Your task to perform on an android device: turn off location Image 0: 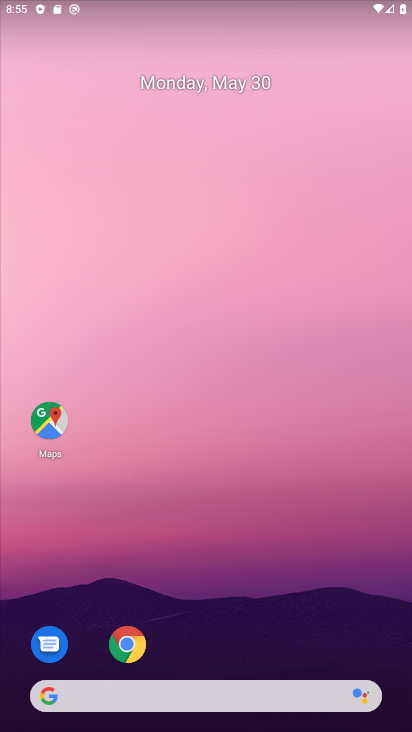
Step 0: drag from (267, 644) to (265, 125)
Your task to perform on an android device: turn off location Image 1: 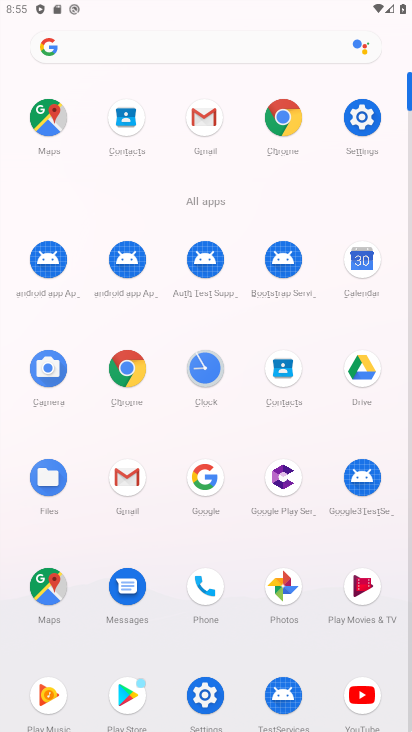
Step 1: click (358, 118)
Your task to perform on an android device: turn off location Image 2: 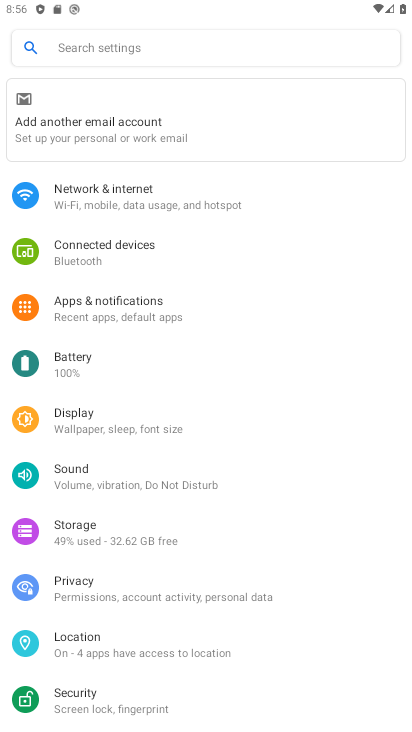
Step 2: click (75, 644)
Your task to perform on an android device: turn off location Image 3: 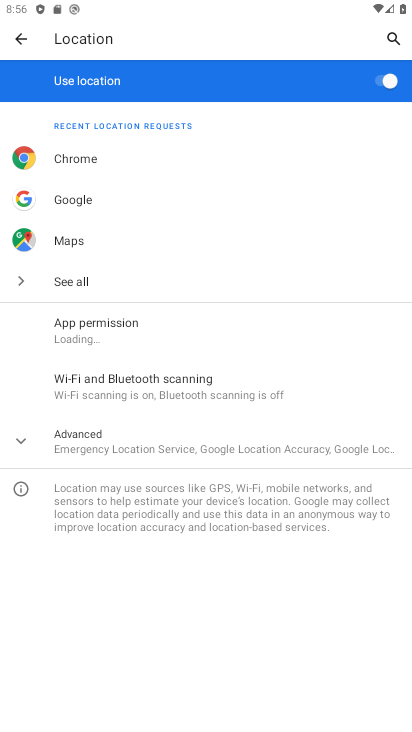
Step 3: click (385, 81)
Your task to perform on an android device: turn off location Image 4: 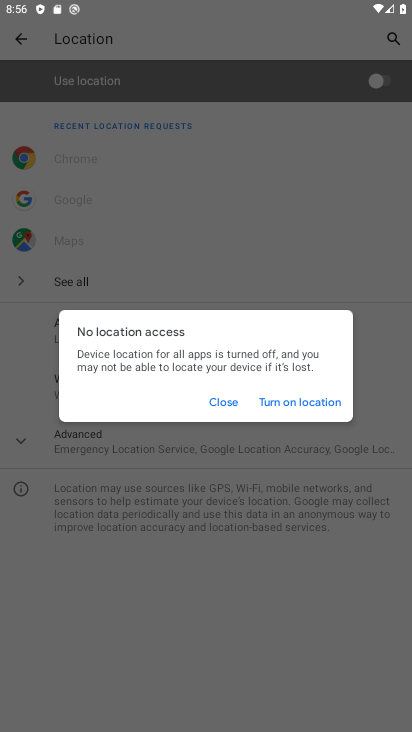
Step 4: click (227, 401)
Your task to perform on an android device: turn off location Image 5: 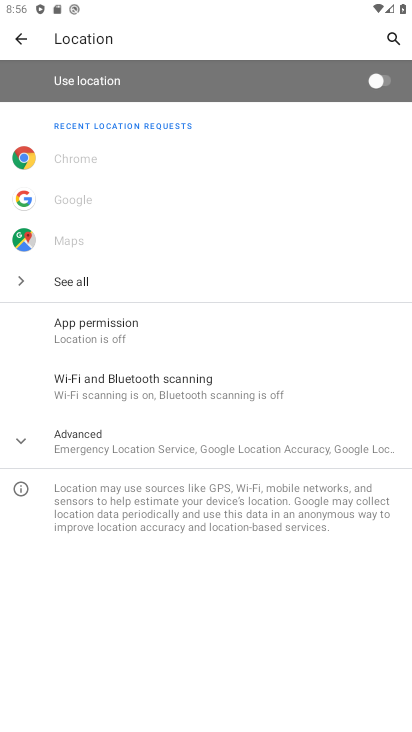
Step 5: task complete